Your task to perform on an android device: check battery use Image 0: 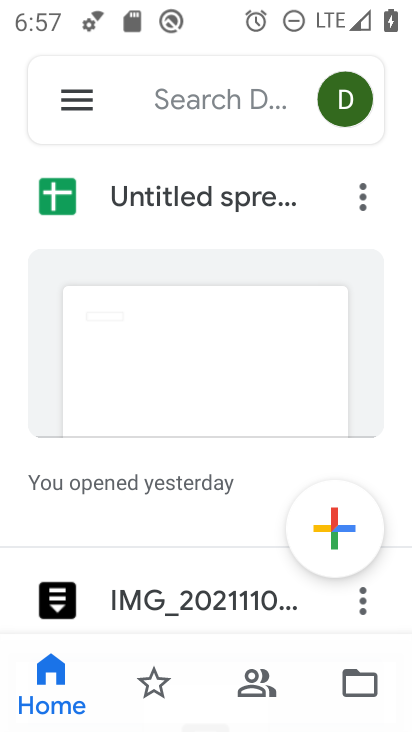
Step 0: press home button
Your task to perform on an android device: check battery use Image 1: 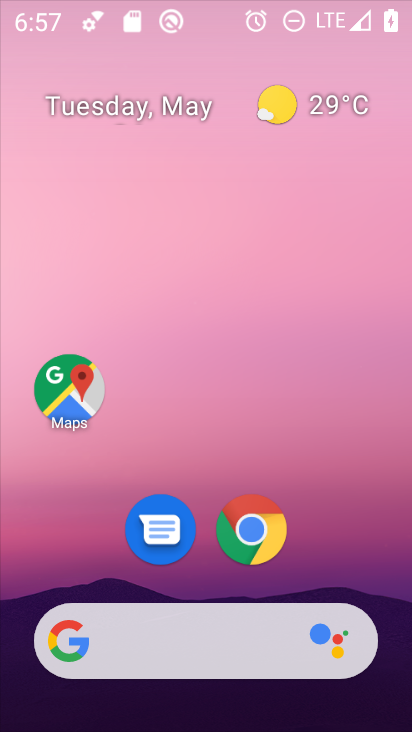
Step 1: drag from (366, 573) to (242, 76)
Your task to perform on an android device: check battery use Image 2: 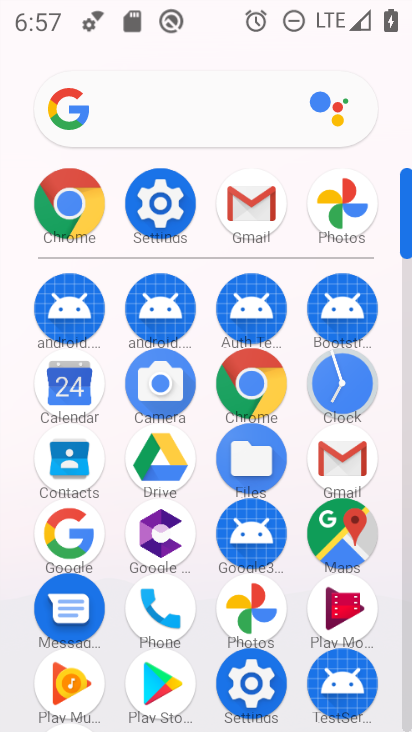
Step 2: click (177, 192)
Your task to perform on an android device: check battery use Image 3: 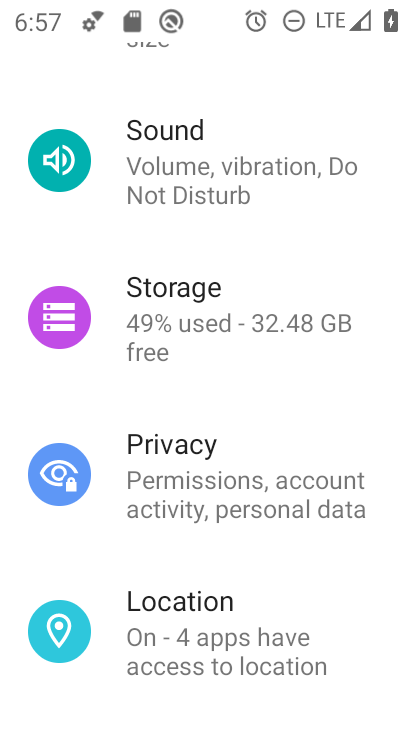
Step 3: drag from (193, 212) to (196, 539)
Your task to perform on an android device: check battery use Image 4: 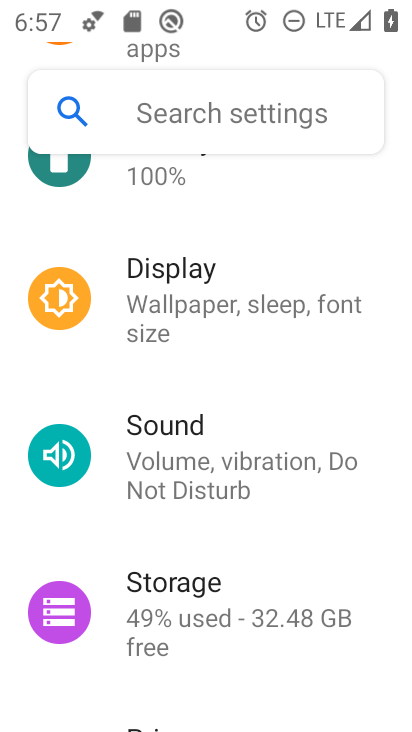
Step 4: click (184, 223)
Your task to perform on an android device: check battery use Image 5: 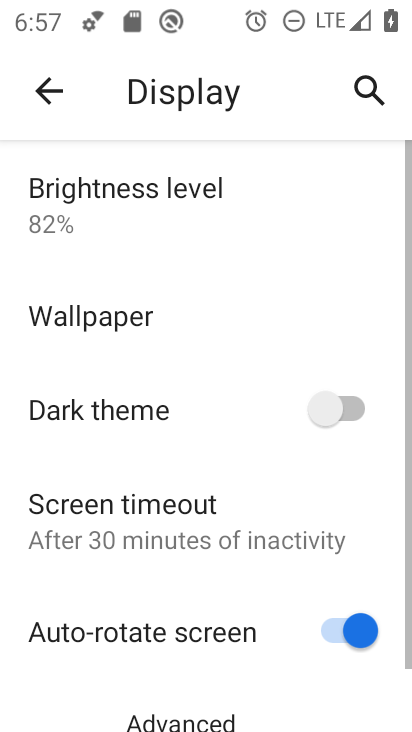
Step 5: press back button
Your task to perform on an android device: check battery use Image 6: 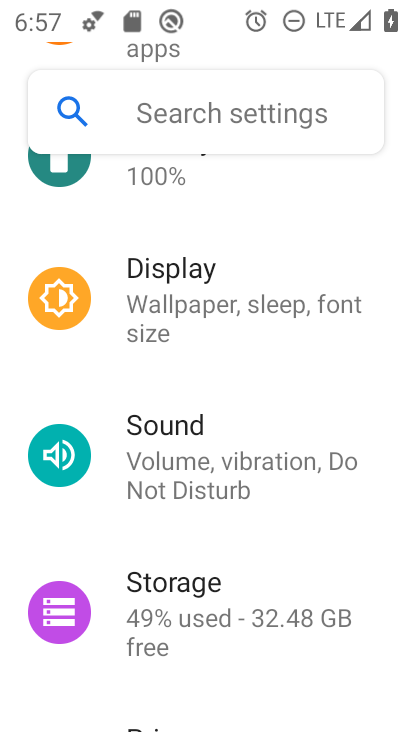
Step 6: click (125, 169)
Your task to perform on an android device: check battery use Image 7: 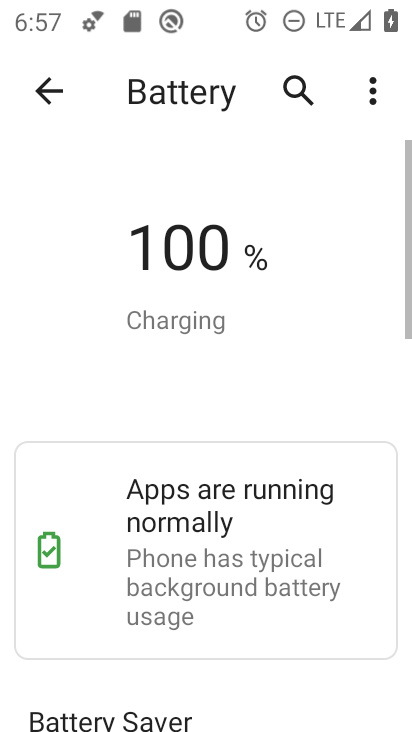
Step 7: click (381, 86)
Your task to perform on an android device: check battery use Image 8: 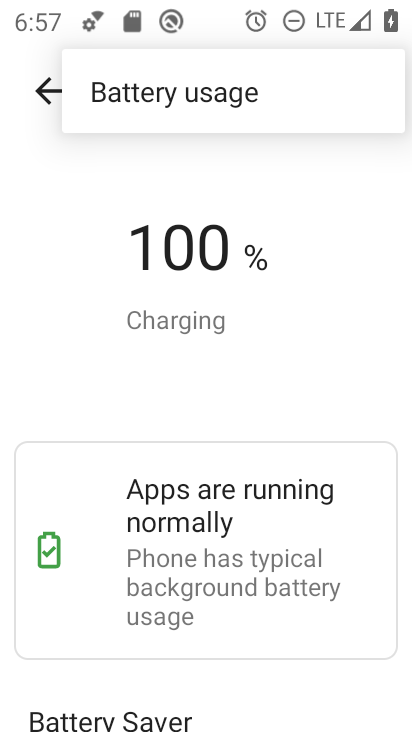
Step 8: click (203, 99)
Your task to perform on an android device: check battery use Image 9: 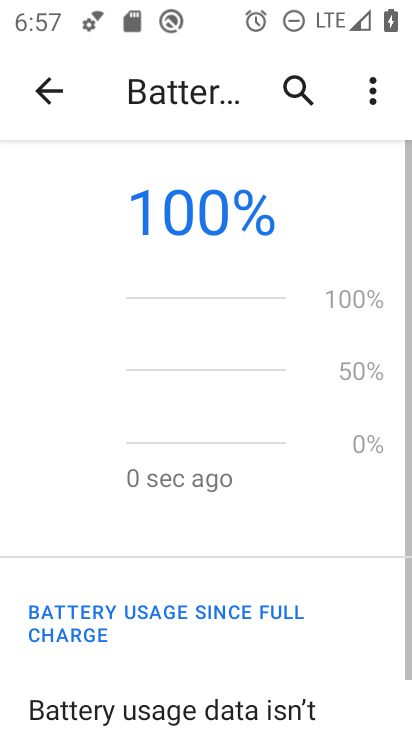
Step 9: task complete